Your task to perform on an android device: find photos in the google photos app Image 0: 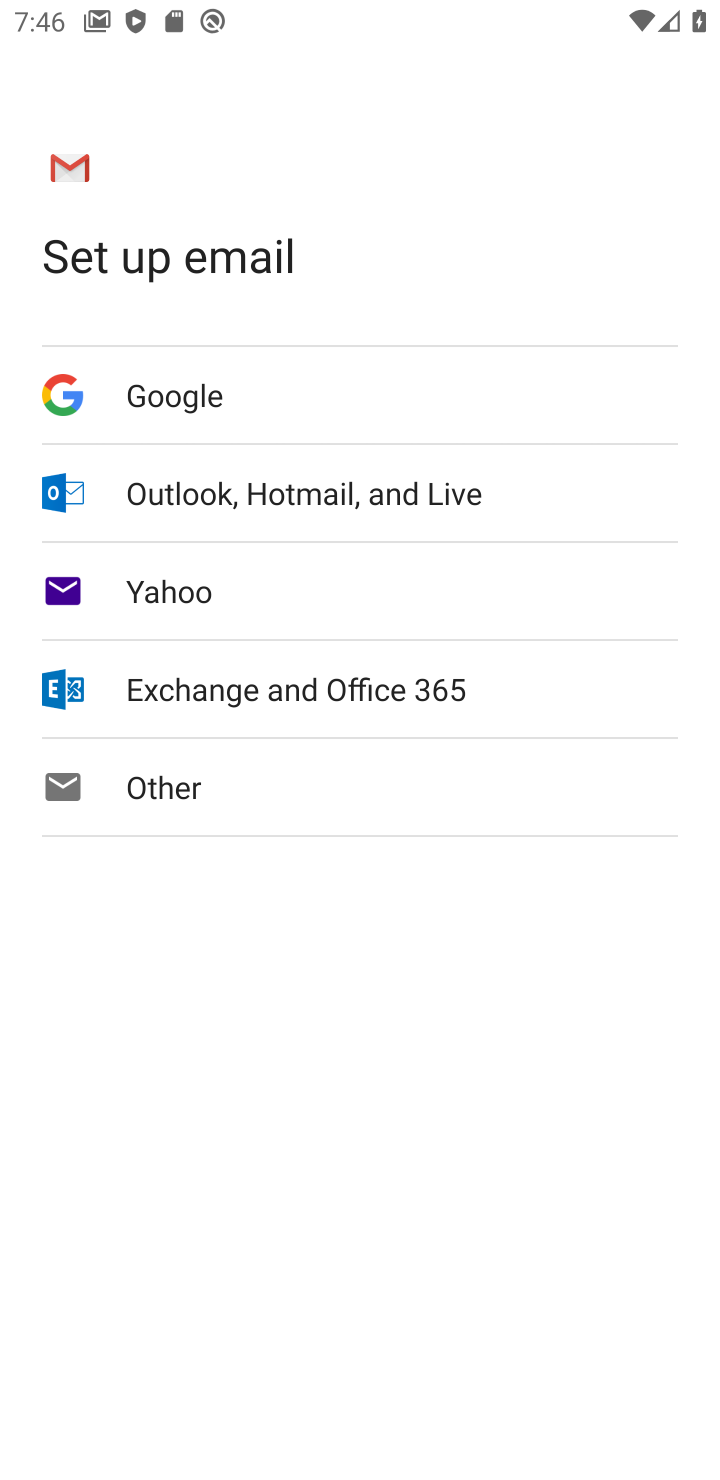
Step 0: press home button
Your task to perform on an android device: find photos in the google photos app Image 1: 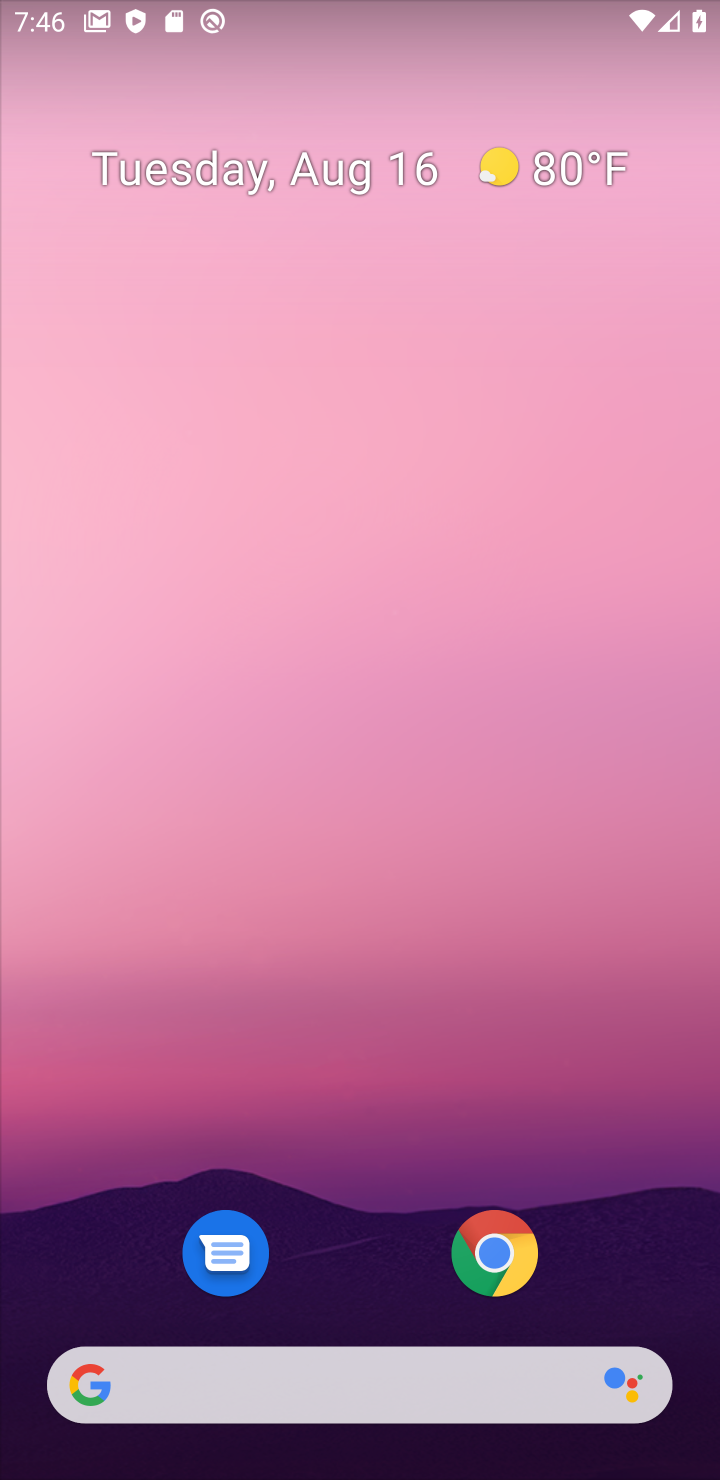
Step 1: drag from (286, 1397) to (457, 81)
Your task to perform on an android device: find photos in the google photos app Image 2: 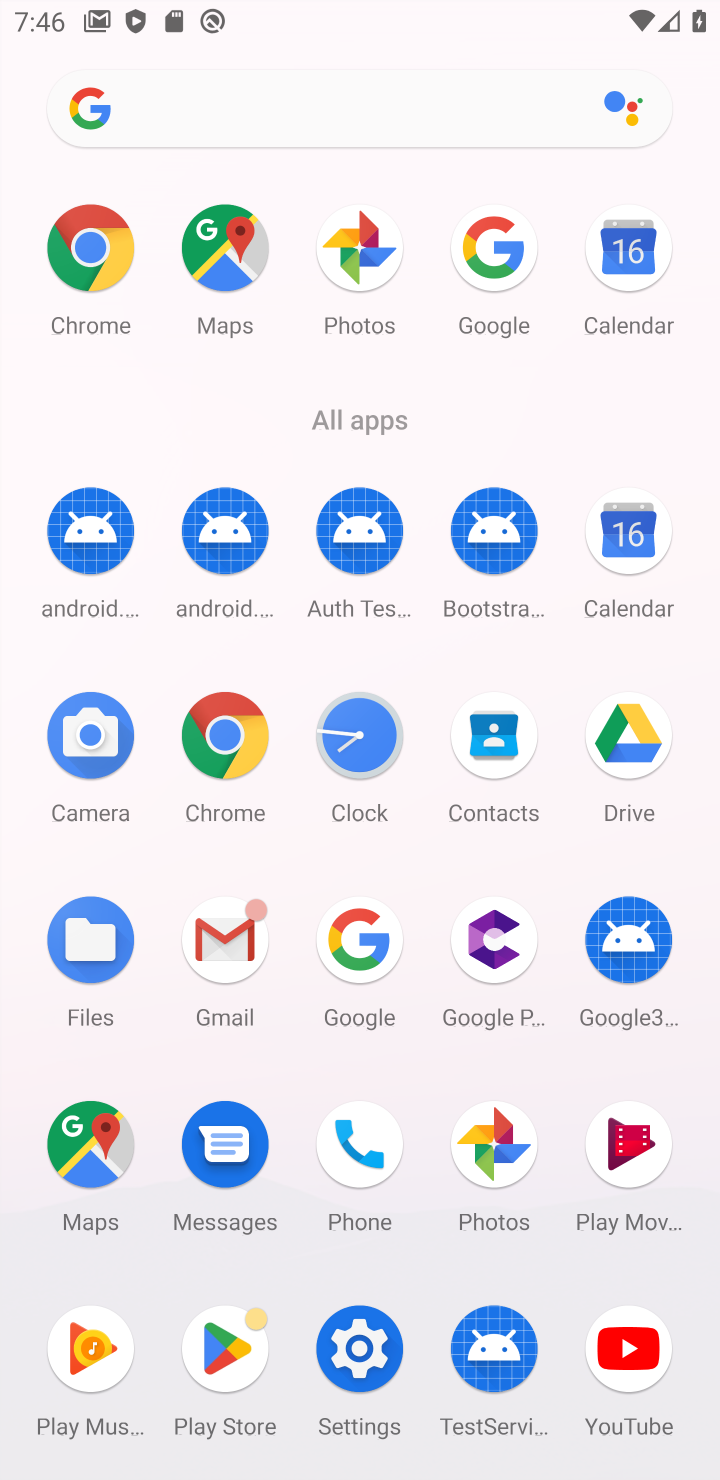
Step 2: click (362, 252)
Your task to perform on an android device: find photos in the google photos app Image 3: 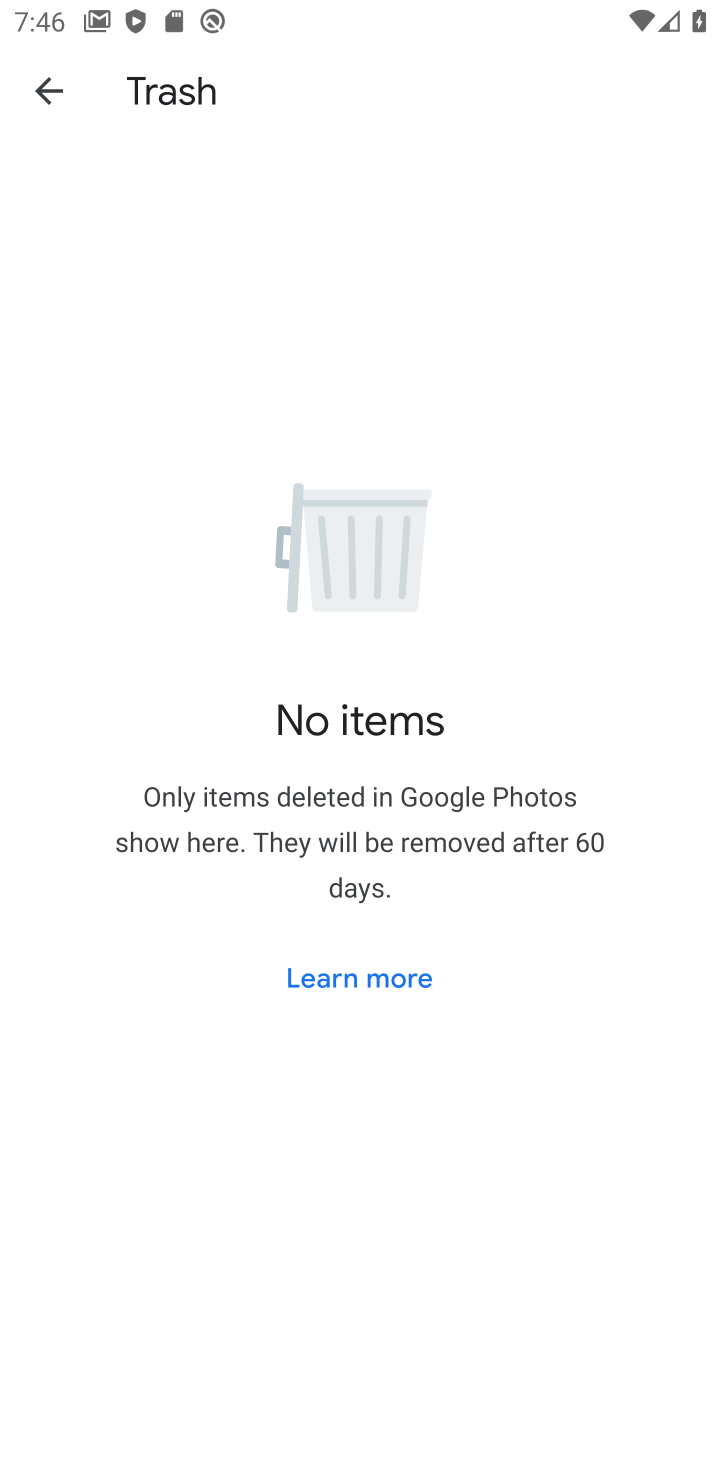
Step 3: task complete